Your task to perform on an android device: open app "Move to iOS" (install if not already installed), go to login, and select forgot password Image 0: 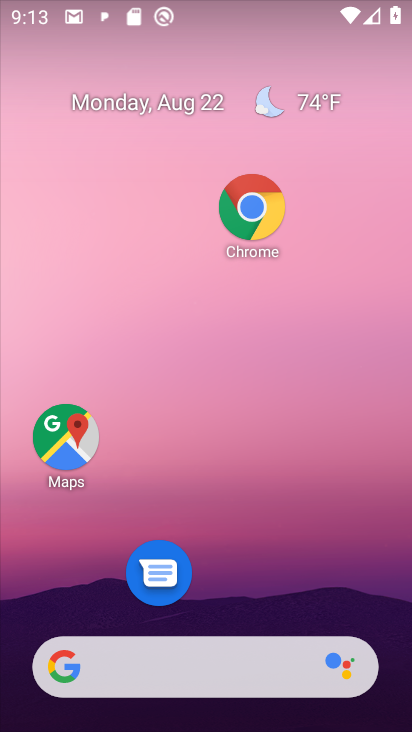
Step 0: drag from (229, 582) to (321, 3)
Your task to perform on an android device: open app "Move to iOS" (install if not already installed), go to login, and select forgot password Image 1: 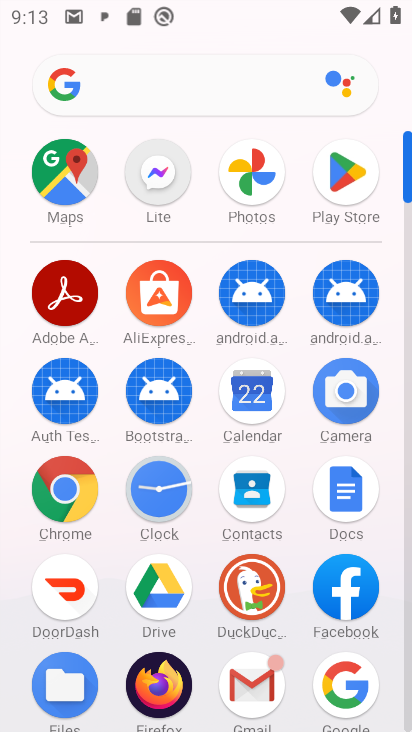
Step 1: click (341, 195)
Your task to perform on an android device: open app "Move to iOS" (install if not already installed), go to login, and select forgot password Image 2: 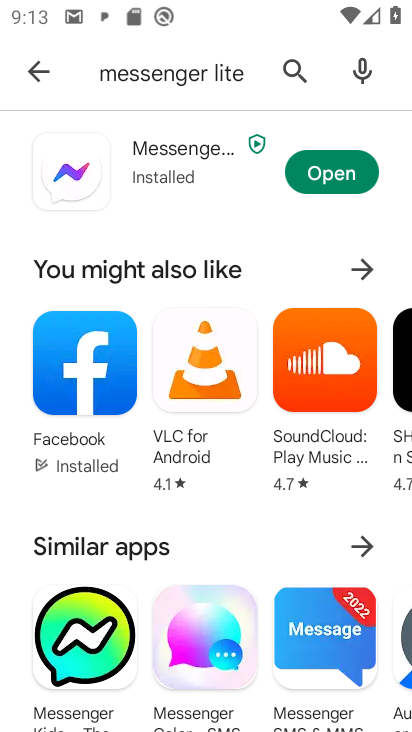
Step 2: click (170, 77)
Your task to perform on an android device: open app "Move to iOS" (install if not already installed), go to login, and select forgot password Image 3: 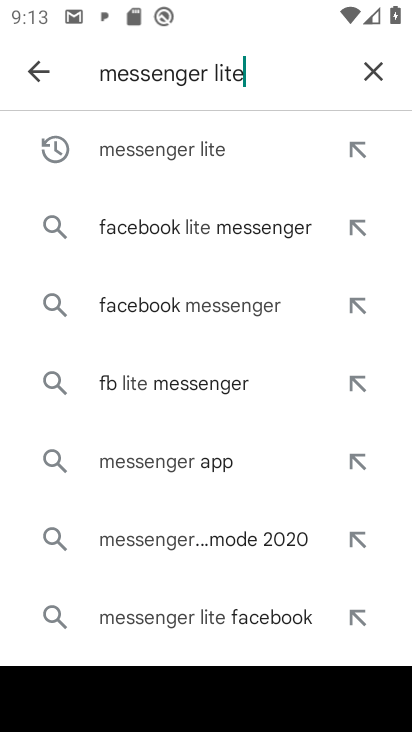
Step 3: click (369, 71)
Your task to perform on an android device: open app "Move to iOS" (install if not already installed), go to login, and select forgot password Image 4: 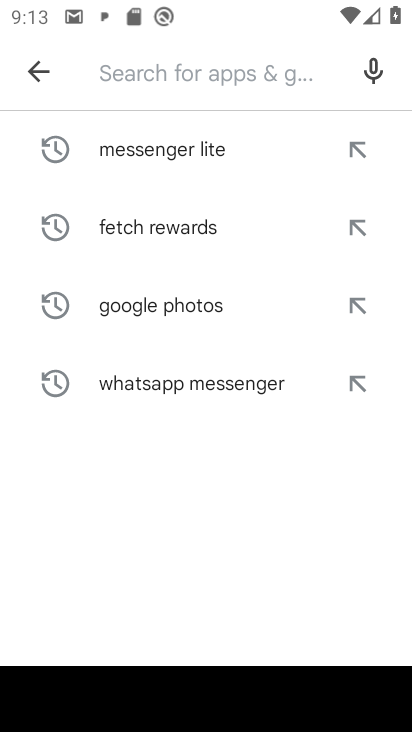
Step 4: type "Move to IOS"
Your task to perform on an android device: open app "Move to iOS" (install if not already installed), go to login, and select forgot password Image 5: 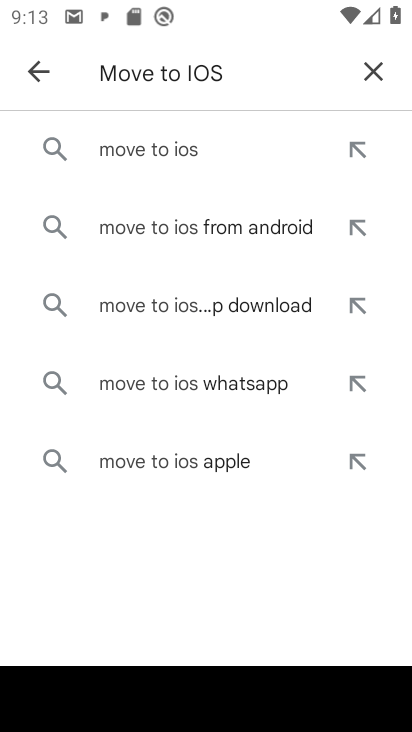
Step 5: click (168, 148)
Your task to perform on an android device: open app "Move to iOS" (install if not already installed), go to login, and select forgot password Image 6: 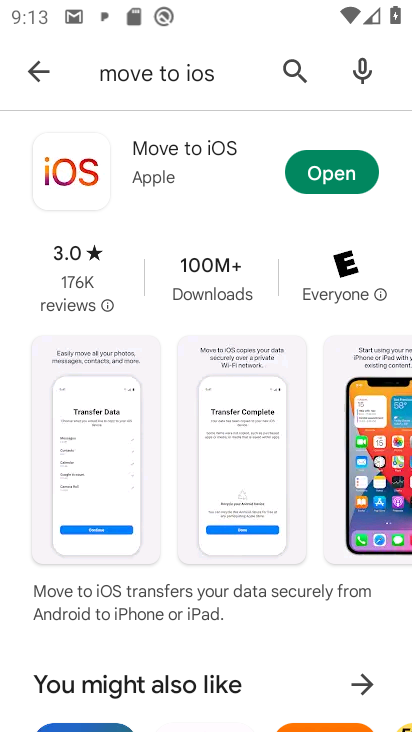
Step 6: click (339, 178)
Your task to perform on an android device: open app "Move to iOS" (install if not already installed), go to login, and select forgot password Image 7: 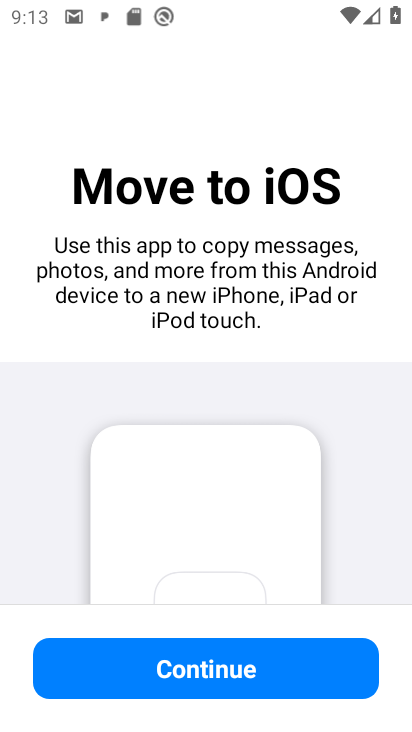
Step 7: click (231, 671)
Your task to perform on an android device: open app "Move to iOS" (install if not already installed), go to login, and select forgot password Image 8: 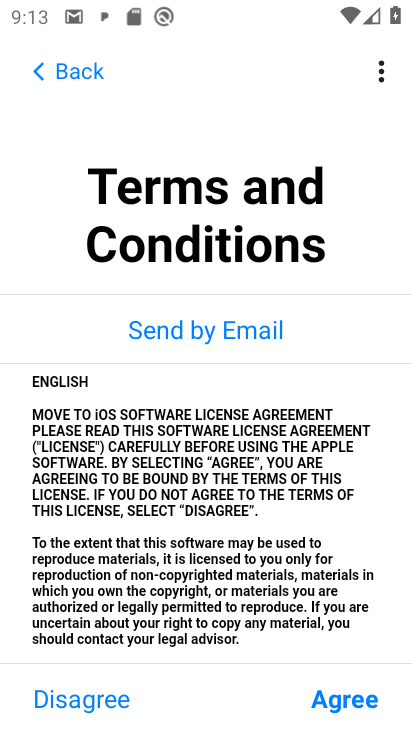
Step 8: click (333, 698)
Your task to perform on an android device: open app "Move to iOS" (install if not already installed), go to login, and select forgot password Image 9: 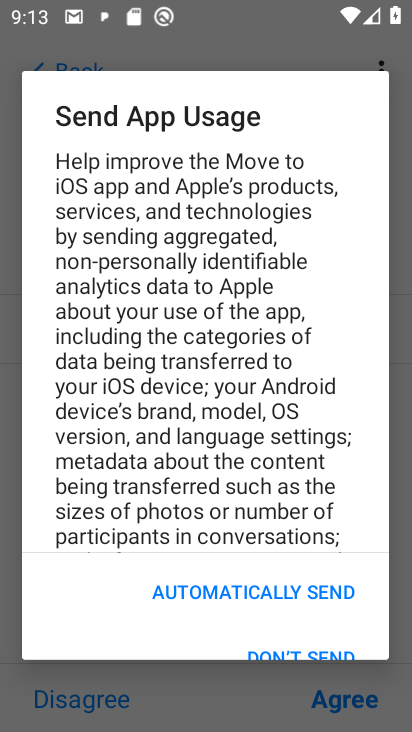
Step 9: click (297, 588)
Your task to perform on an android device: open app "Move to iOS" (install if not already installed), go to login, and select forgot password Image 10: 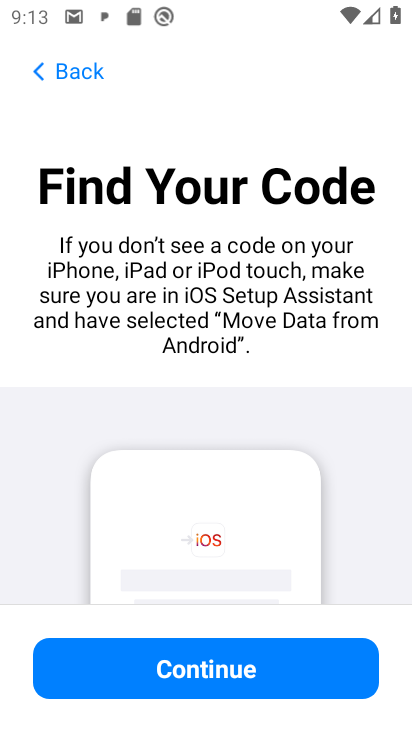
Step 10: click (247, 677)
Your task to perform on an android device: open app "Move to iOS" (install if not already installed), go to login, and select forgot password Image 11: 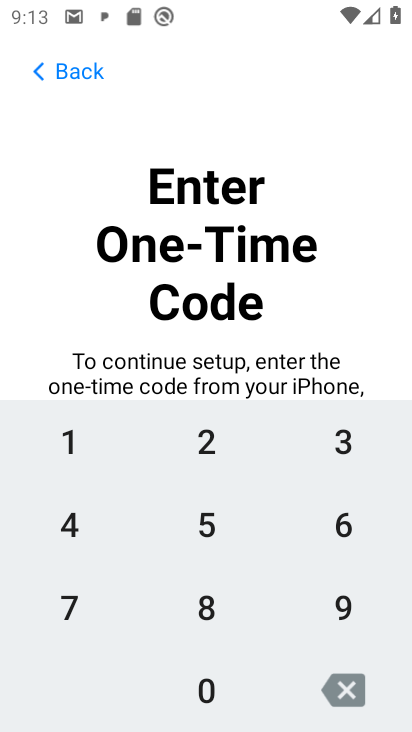
Step 11: task complete